Your task to perform on an android device: Go to Google maps Image 0: 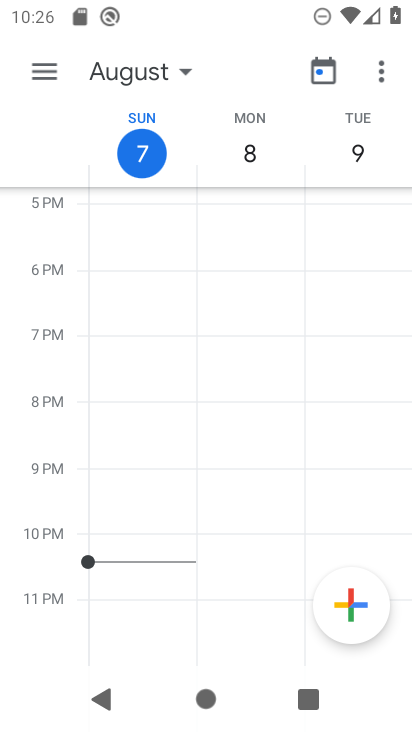
Step 0: press home button
Your task to perform on an android device: Go to Google maps Image 1: 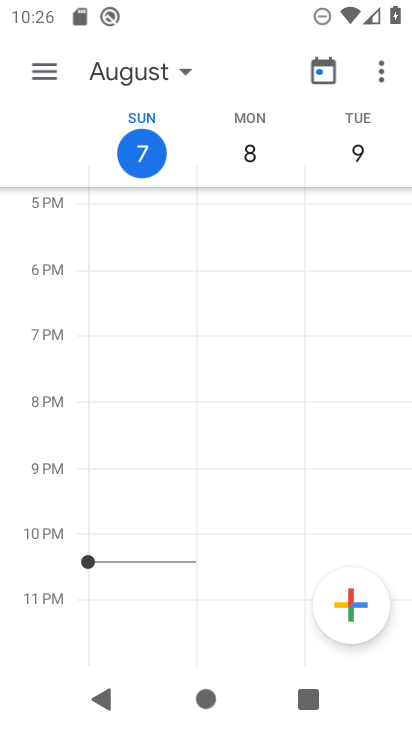
Step 1: press home button
Your task to perform on an android device: Go to Google maps Image 2: 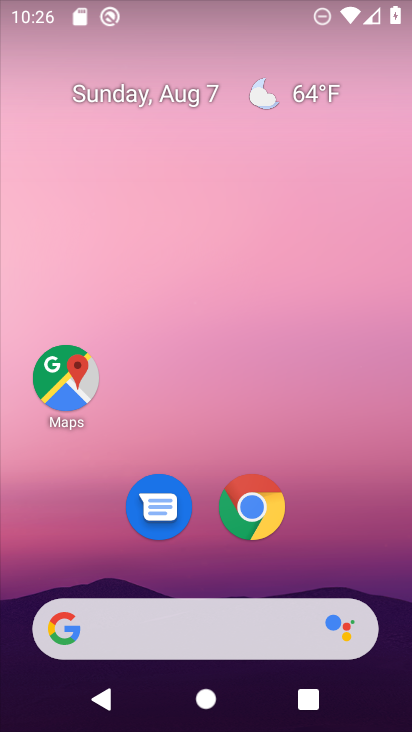
Step 2: click (59, 375)
Your task to perform on an android device: Go to Google maps Image 3: 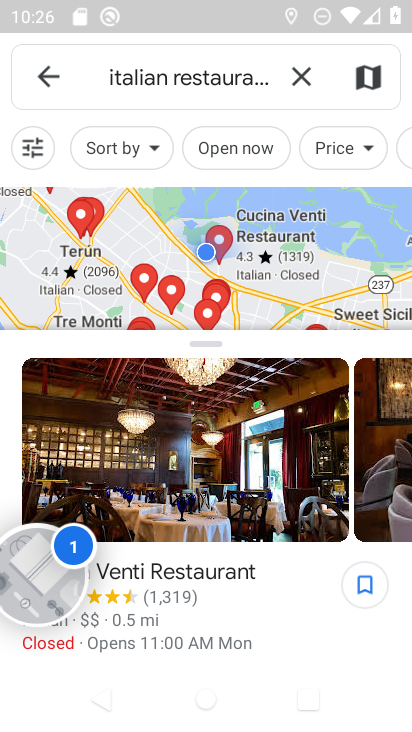
Step 3: task complete